Your task to perform on an android device: open the mobile data screen to see how much data has been used Image 0: 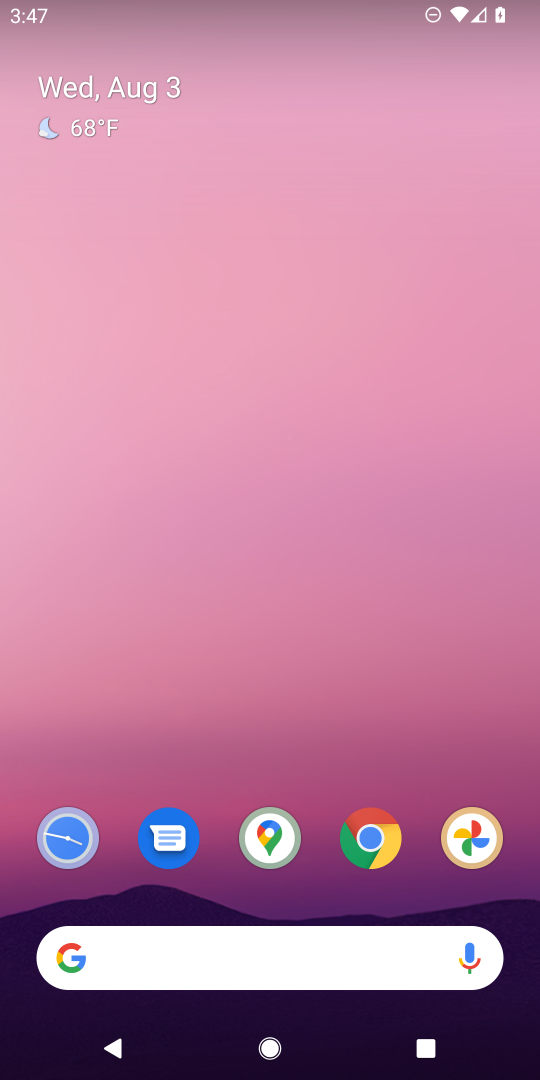
Step 0: drag from (313, 879) to (363, 531)
Your task to perform on an android device: open the mobile data screen to see how much data has been used Image 1: 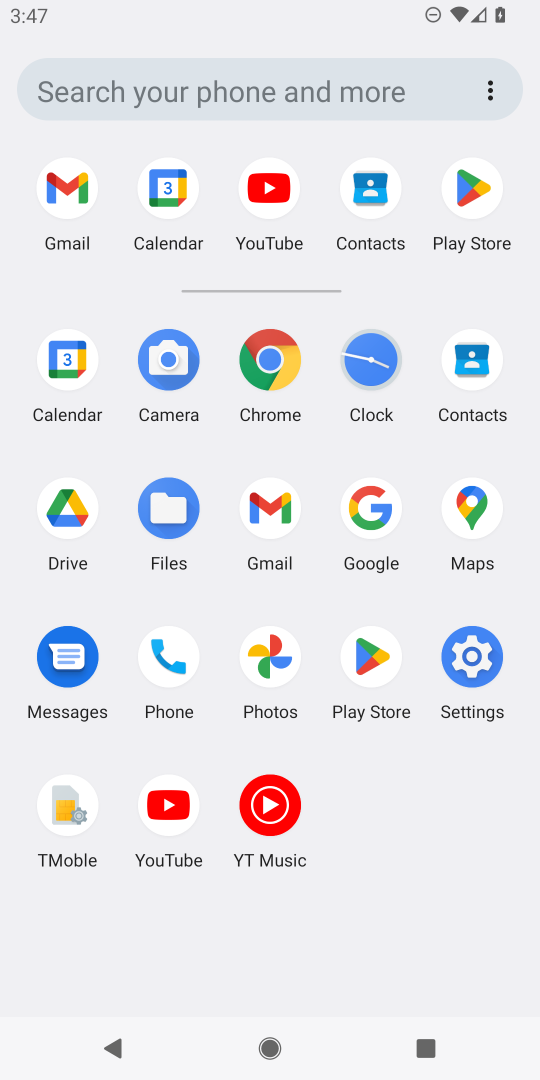
Step 1: click (481, 640)
Your task to perform on an android device: open the mobile data screen to see how much data has been used Image 2: 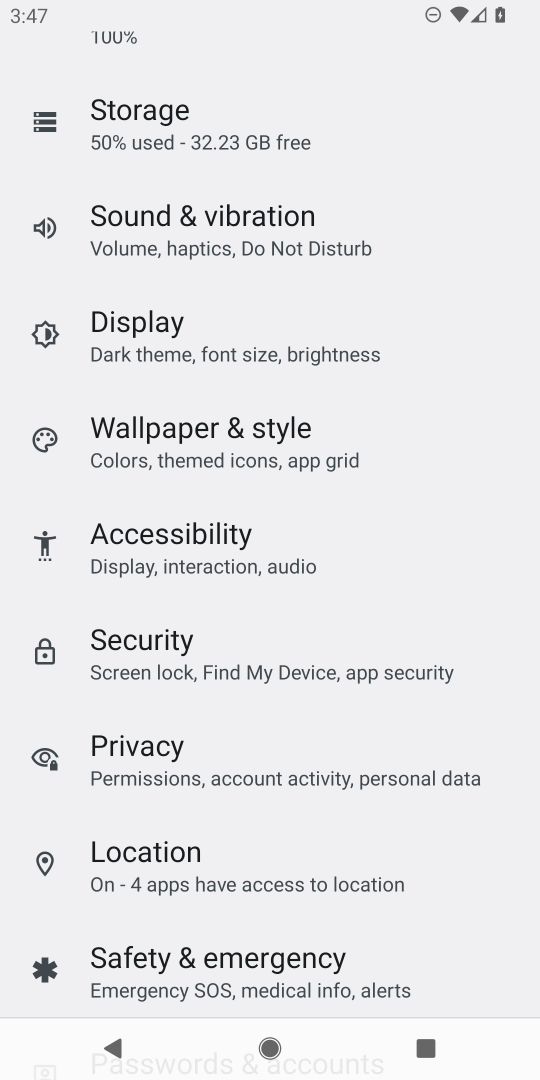
Step 2: drag from (226, 256) to (223, 624)
Your task to perform on an android device: open the mobile data screen to see how much data has been used Image 3: 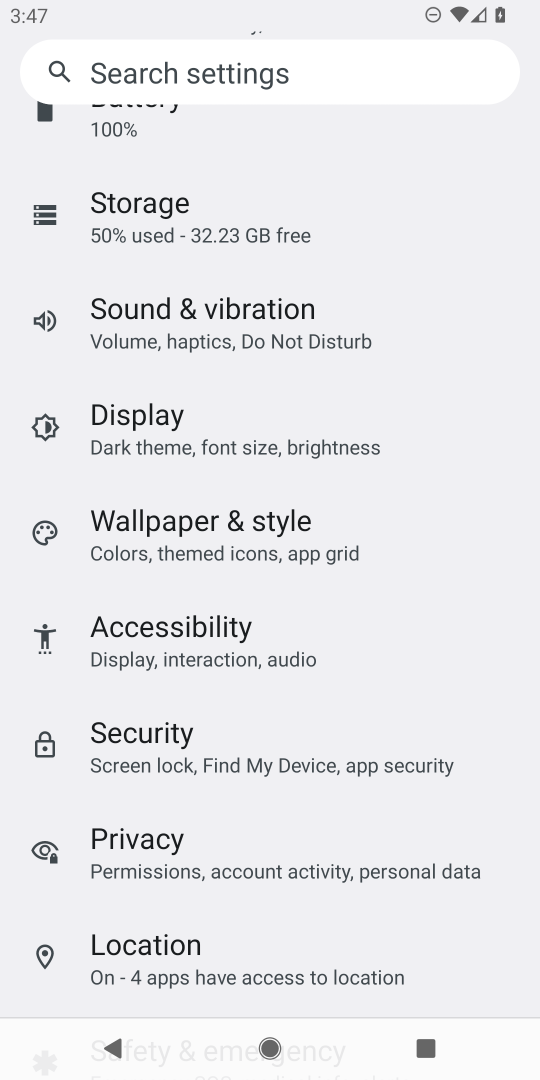
Step 3: drag from (251, 322) to (273, 595)
Your task to perform on an android device: open the mobile data screen to see how much data has been used Image 4: 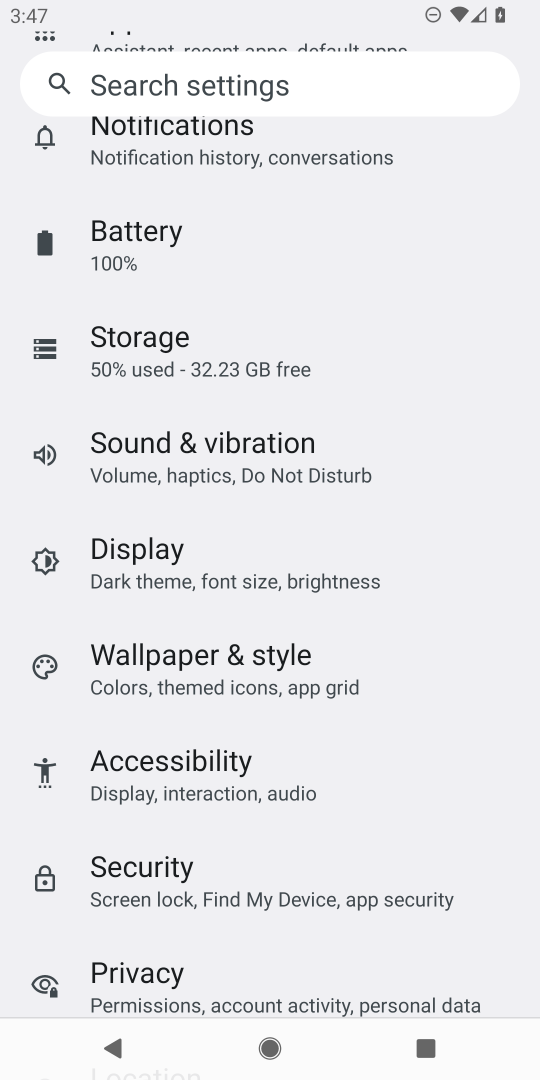
Step 4: drag from (238, 323) to (211, 632)
Your task to perform on an android device: open the mobile data screen to see how much data has been used Image 5: 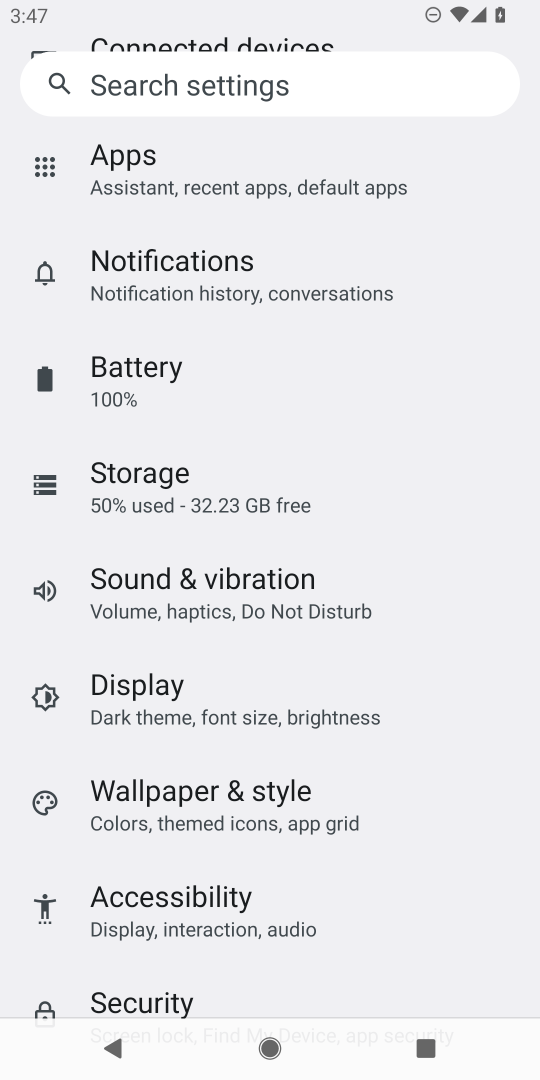
Step 5: drag from (246, 176) to (300, 720)
Your task to perform on an android device: open the mobile data screen to see how much data has been used Image 6: 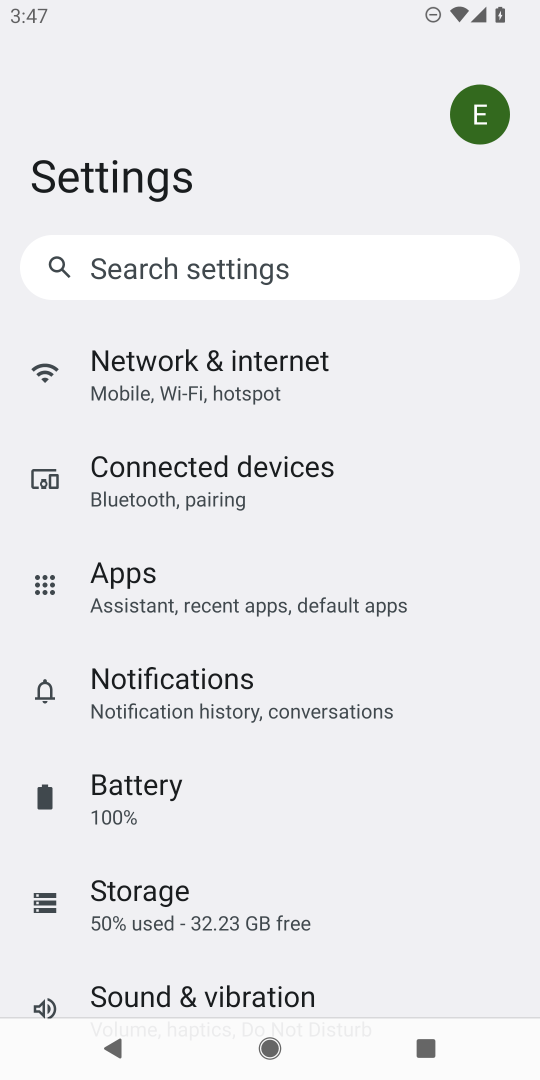
Step 6: click (331, 377)
Your task to perform on an android device: open the mobile data screen to see how much data has been used Image 7: 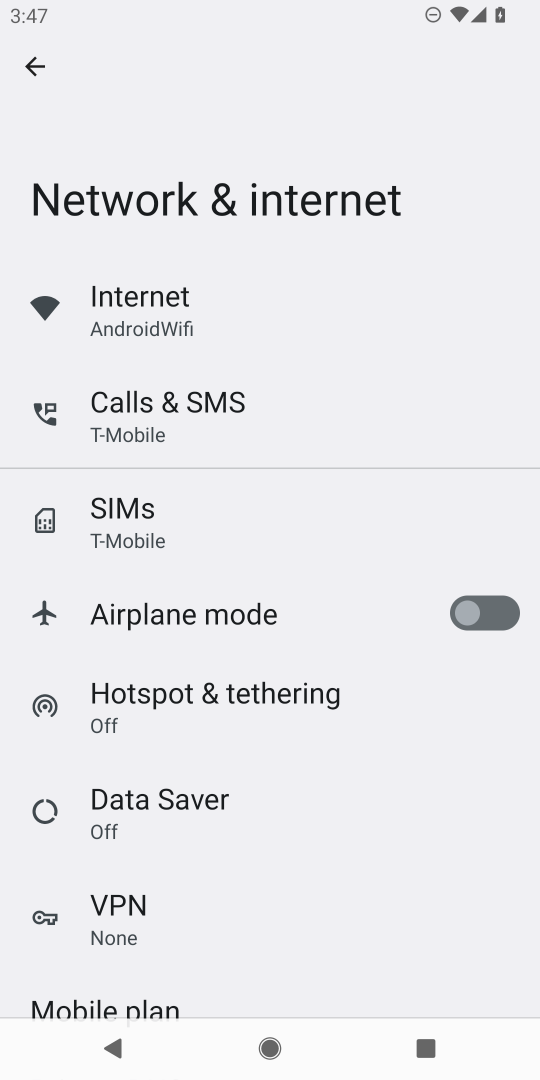
Step 7: click (127, 298)
Your task to perform on an android device: open the mobile data screen to see how much data has been used Image 8: 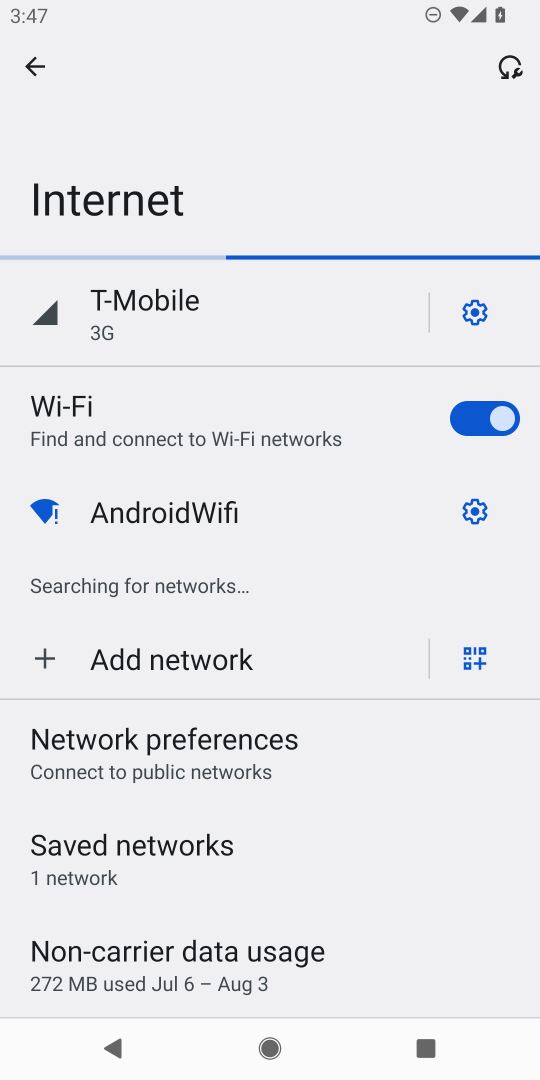
Step 8: click (127, 951)
Your task to perform on an android device: open the mobile data screen to see how much data has been used Image 9: 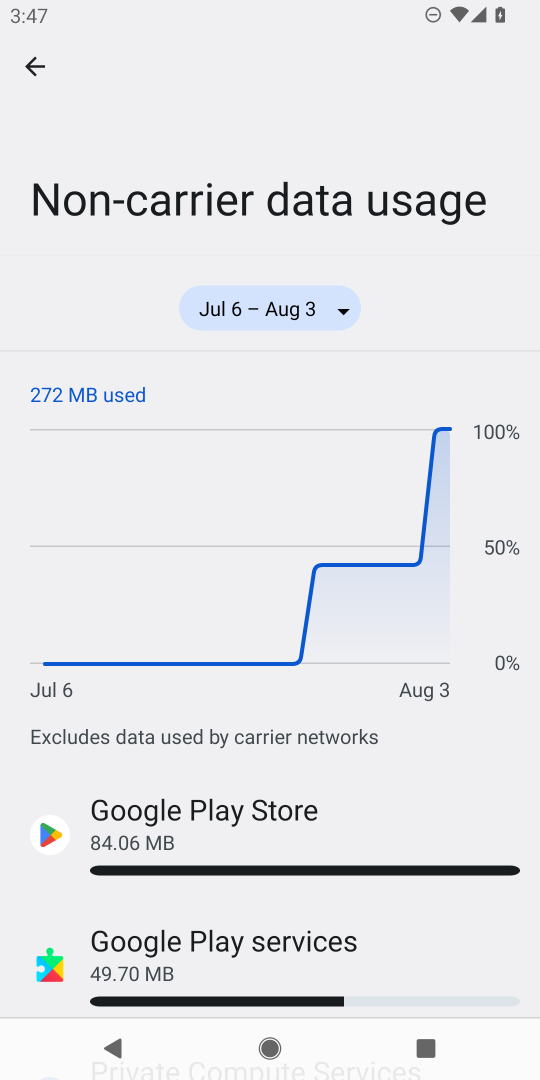
Step 9: task complete